Your task to perform on an android device: See recent photos Image 0: 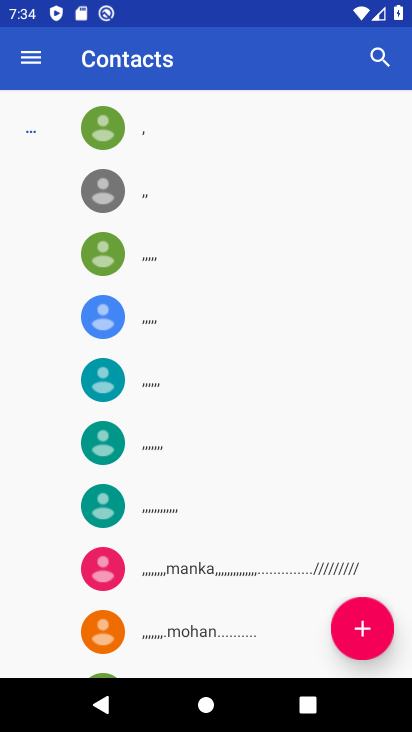
Step 0: press home button
Your task to perform on an android device: See recent photos Image 1: 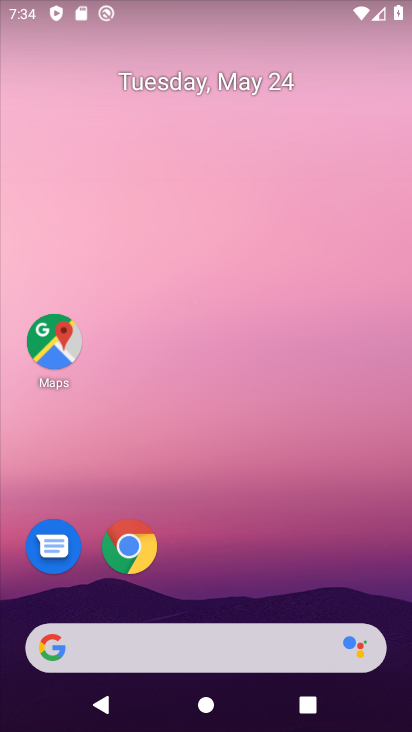
Step 1: drag from (224, 554) to (245, 20)
Your task to perform on an android device: See recent photos Image 2: 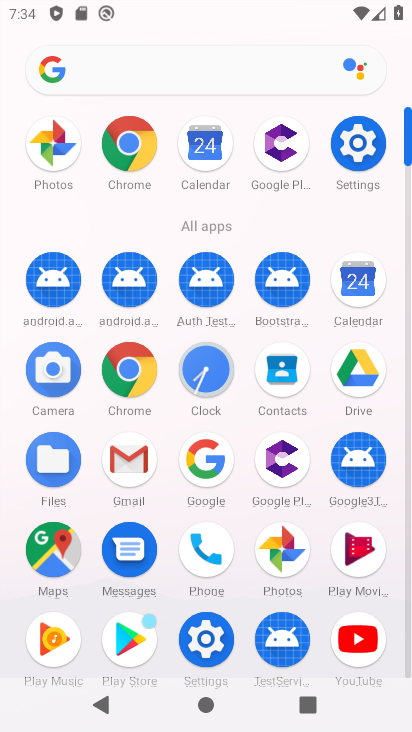
Step 2: click (49, 142)
Your task to perform on an android device: See recent photos Image 3: 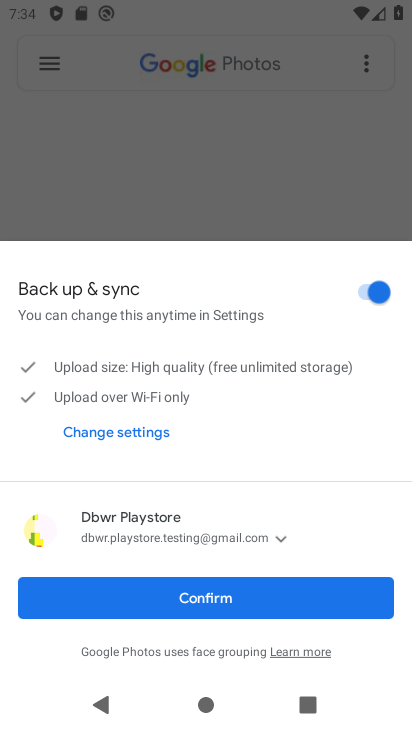
Step 3: click (366, 592)
Your task to perform on an android device: See recent photos Image 4: 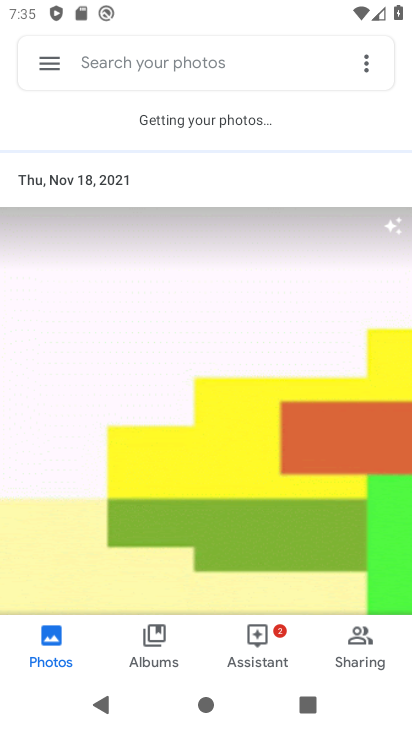
Step 4: click (261, 352)
Your task to perform on an android device: See recent photos Image 5: 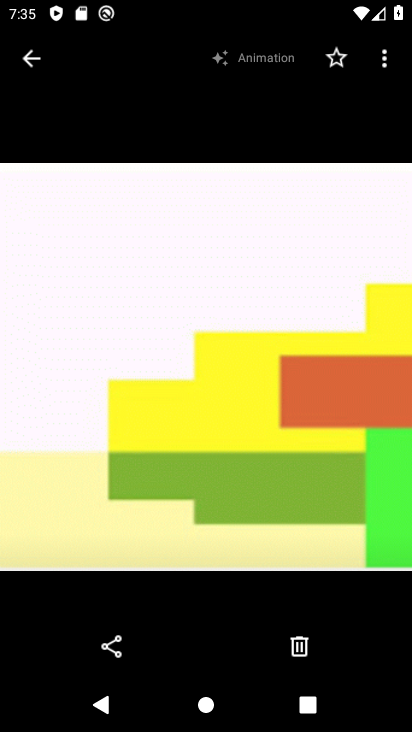
Step 5: click (384, 66)
Your task to perform on an android device: See recent photos Image 6: 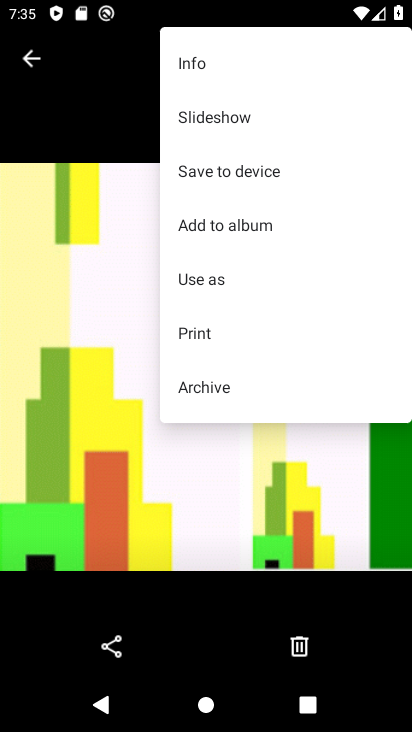
Step 6: click (140, 296)
Your task to perform on an android device: See recent photos Image 7: 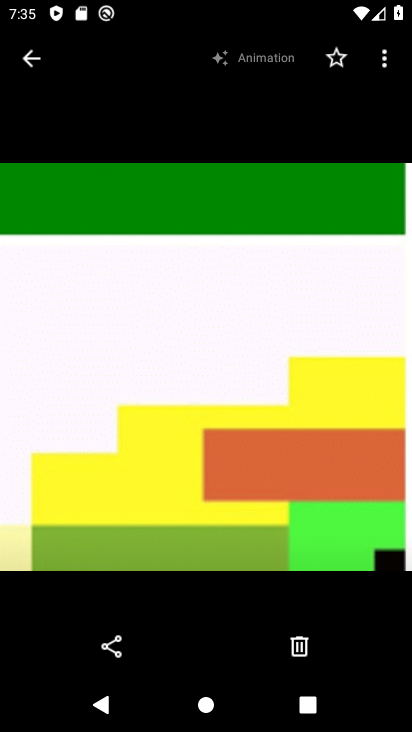
Step 7: press back button
Your task to perform on an android device: See recent photos Image 8: 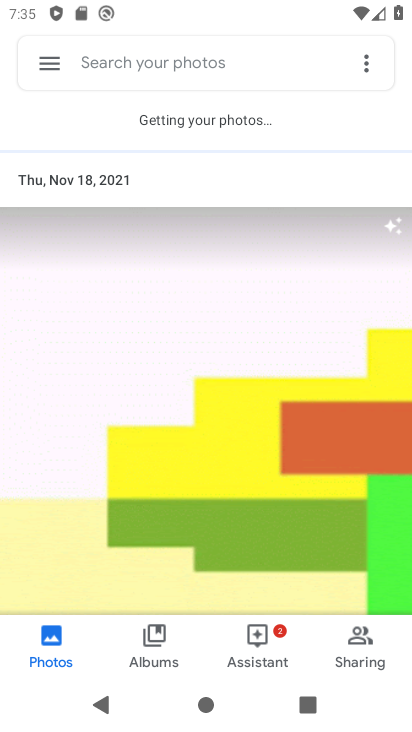
Step 8: drag from (142, 431) to (203, 164)
Your task to perform on an android device: See recent photos Image 9: 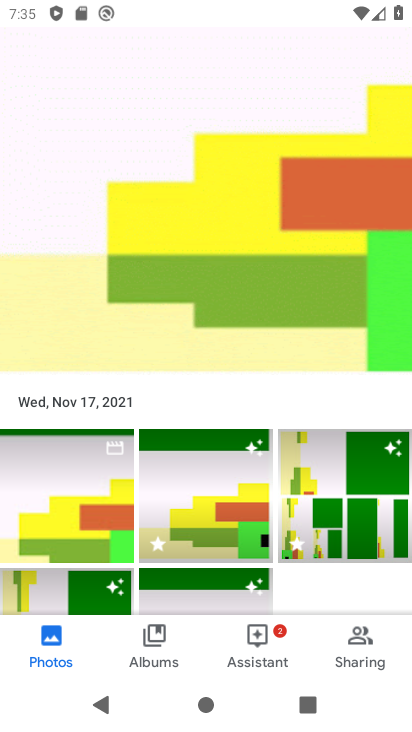
Step 9: drag from (203, 164) to (191, 432)
Your task to perform on an android device: See recent photos Image 10: 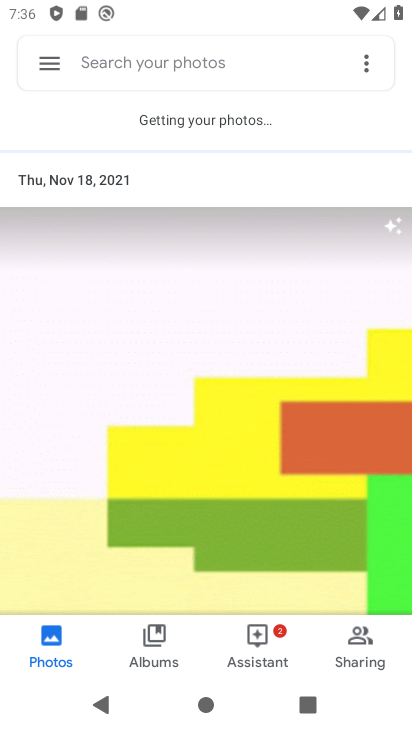
Step 10: click (191, 405)
Your task to perform on an android device: See recent photos Image 11: 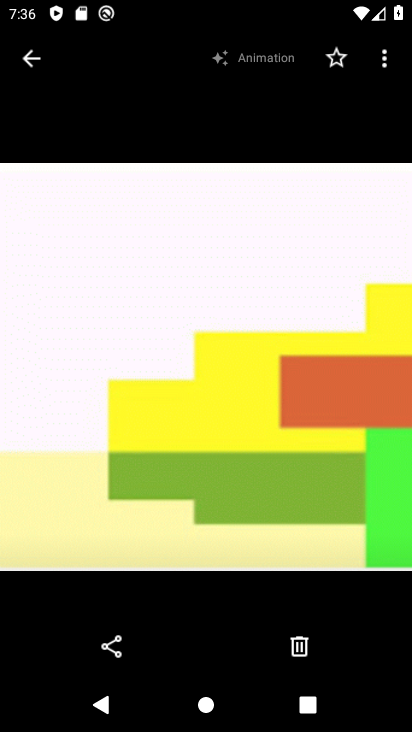
Step 11: click (40, 62)
Your task to perform on an android device: See recent photos Image 12: 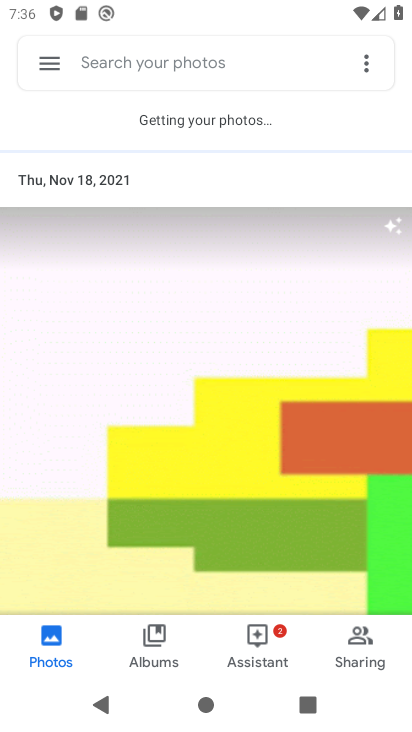
Step 12: task complete